Your task to perform on an android device: toggle translation in the chrome app Image 0: 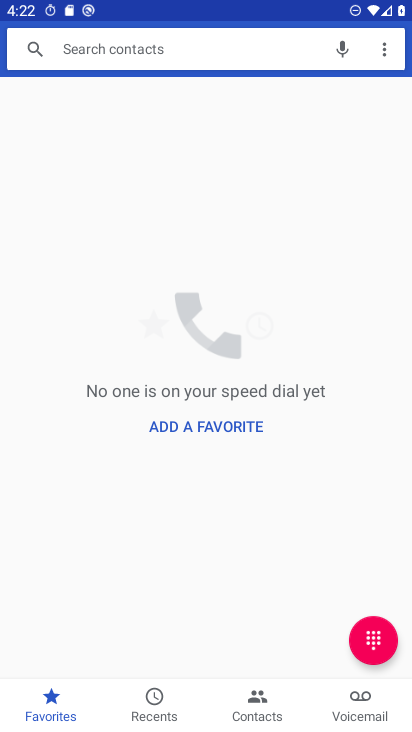
Step 0: press home button
Your task to perform on an android device: toggle translation in the chrome app Image 1: 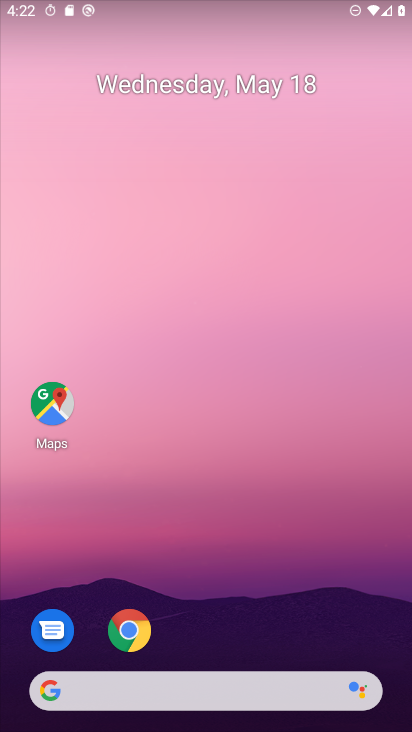
Step 1: click (126, 631)
Your task to perform on an android device: toggle translation in the chrome app Image 2: 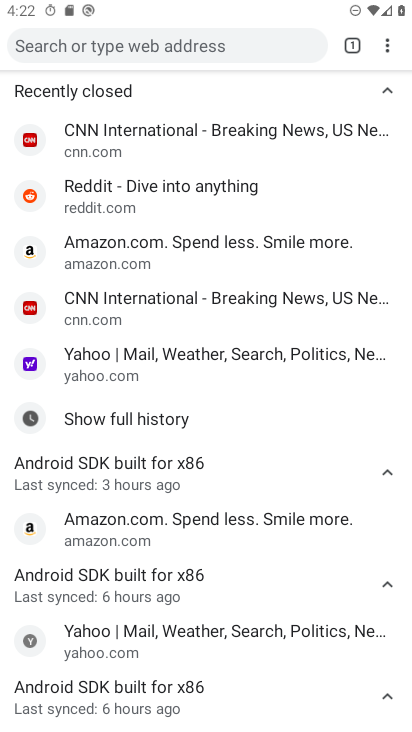
Step 2: click (385, 43)
Your task to perform on an android device: toggle translation in the chrome app Image 3: 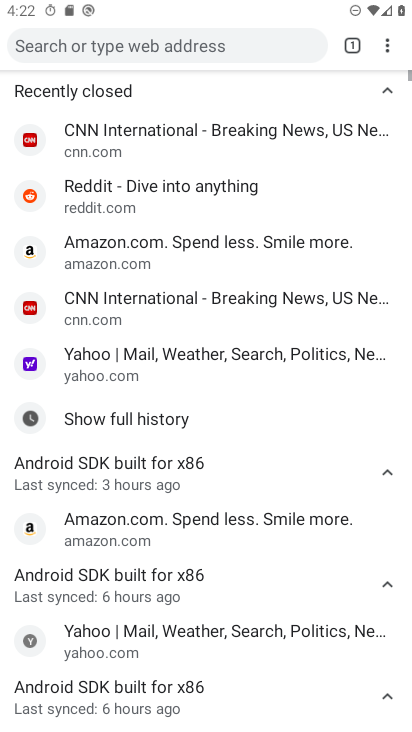
Step 3: click (390, 48)
Your task to perform on an android device: toggle translation in the chrome app Image 4: 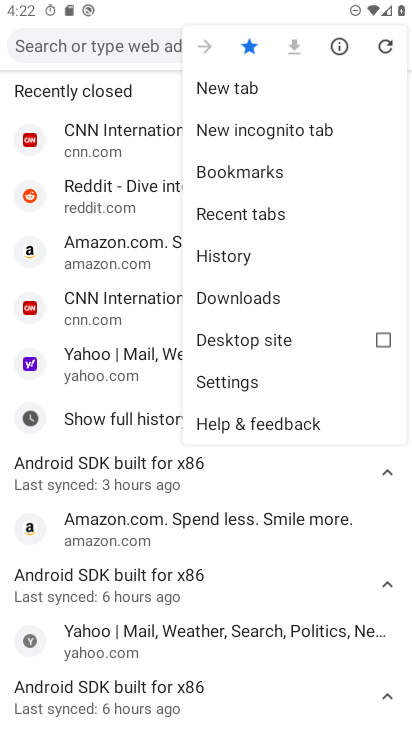
Step 4: click (255, 382)
Your task to perform on an android device: toggle translation in the chrome app Image 5: 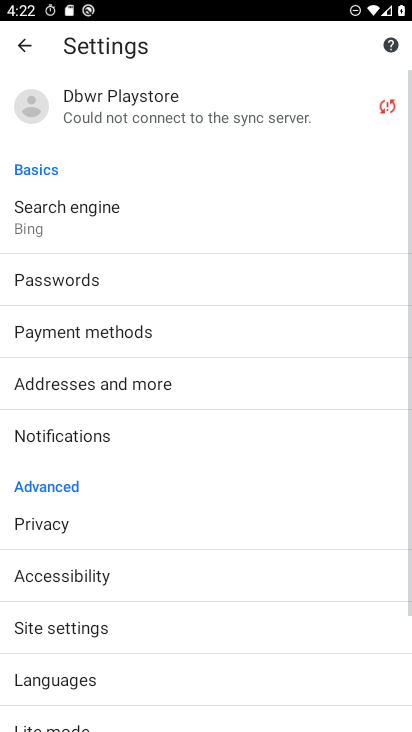
Step 5: click (90, 684)
Your task to perform on an android device: toggle translation in the chrome app Image 6: 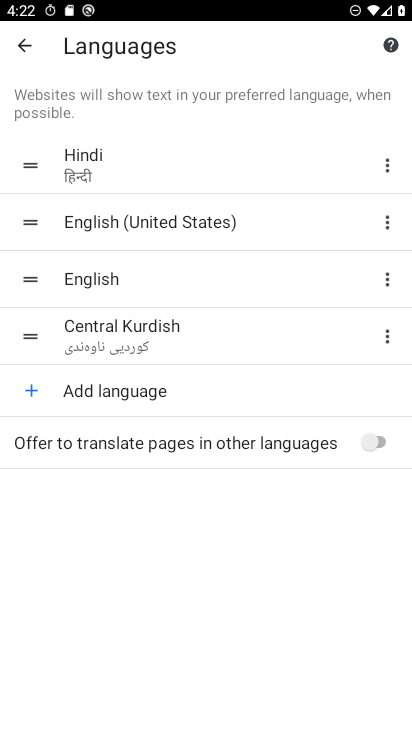
Step 6: click (371, 437)
Your task to perform on an android device: toggle translation in the chrome app Image 7: 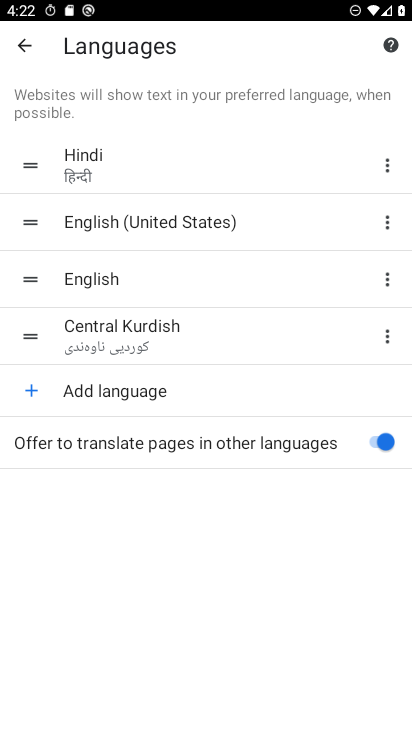
Step 7: task complete